Your task to perform on an android device: turn on javascript in the chrome app Image 0: 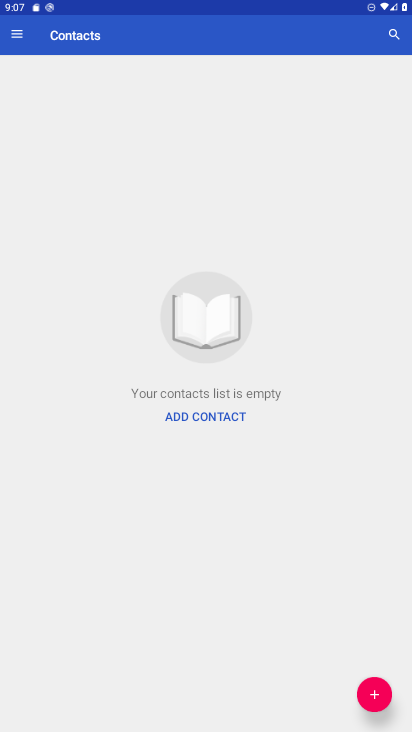
Step 0: press home button
Your task to perform on an android device: turn on javascript in the chrome app Image 1: 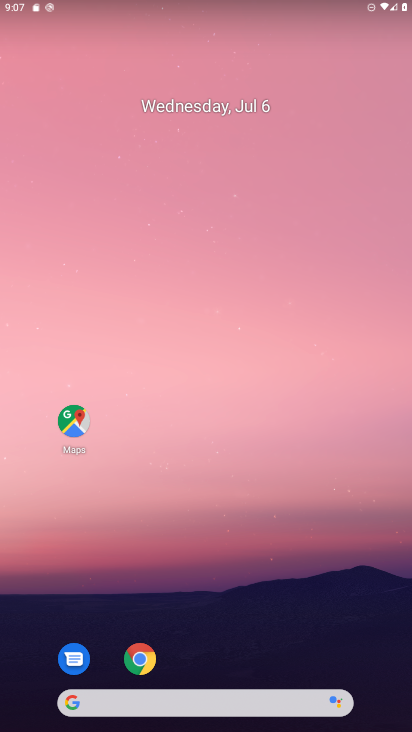
Step 1: drag from (317, 654) to (348, 247)
Your task to perform on an android device: turn on javascript in the chrome app Image 2: 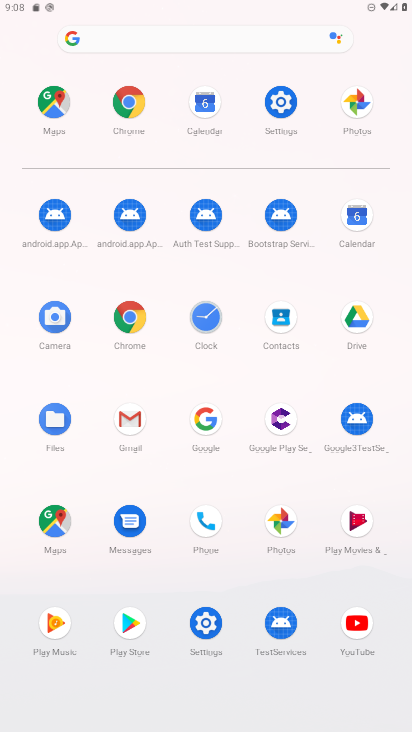
Step 2: click (129, 323)
Your task to perform on an android device: turn on javascript in the chrome app Image 3: 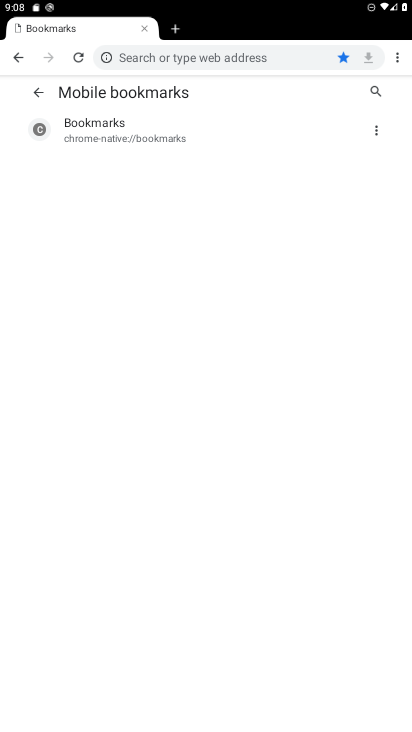
Step 3: click (398, 52)
Your task to perform on an android device: turn on javascript in the chrome app Image 4: 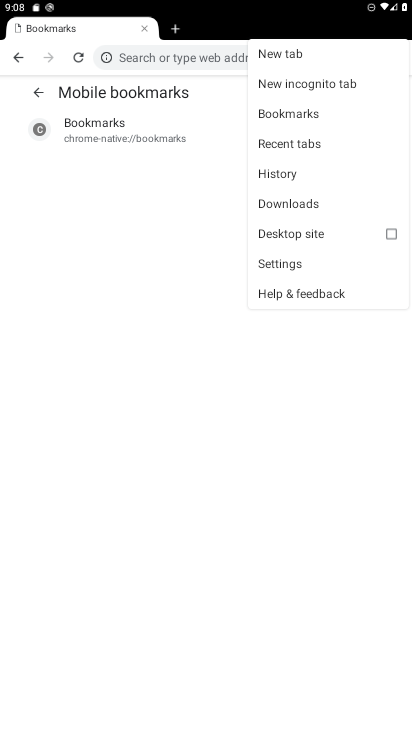
Step 4: click (301, 264)
Your task to perform on an android device: turn on javascript in the chrome app Image 5: 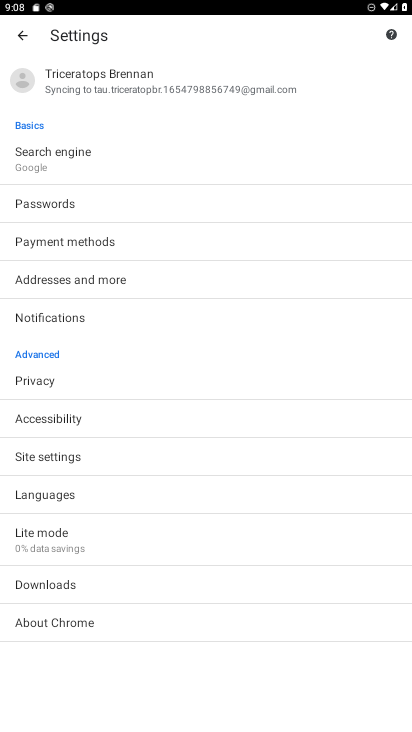
Step 5: click (213, 449)
Your task to perform on an android device: turn on javascript in the chrome app Image 6: 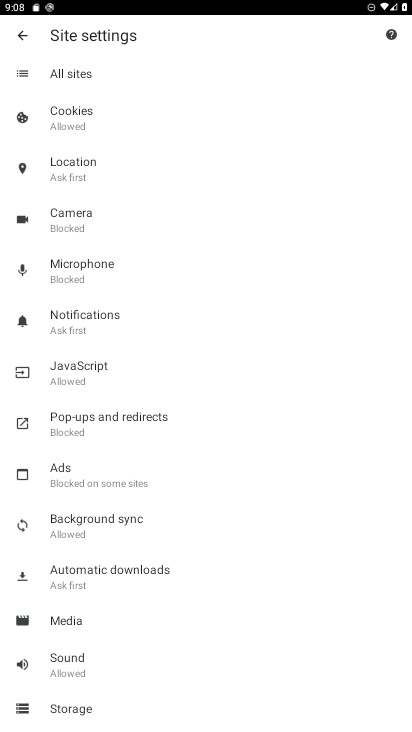
Step 6: click (124, 381)
Your task to perform on an android device: turn on javascript in the chrome app Image 7: 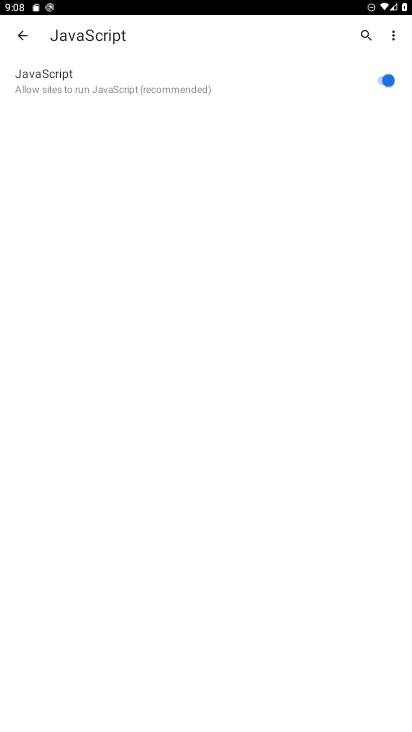
Step 7: task complete